Your task to perform on an android device: turn on the 12-hour format for clock Image 0: 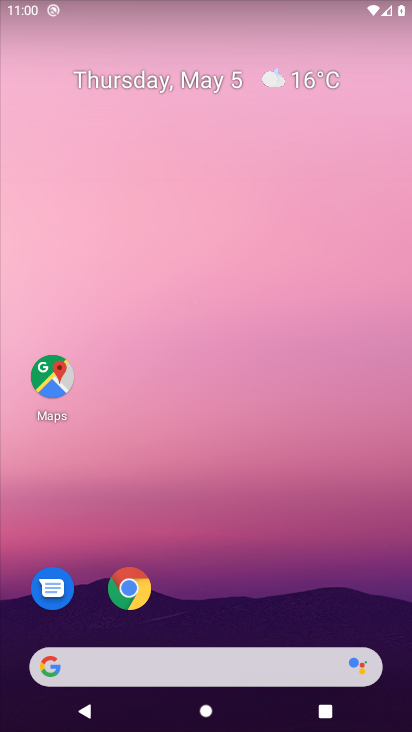
Step 0: drag from (243, 619) to (223, 136)
Your task to perform on an android device: turn on the 12-hour format for clock Image 1: 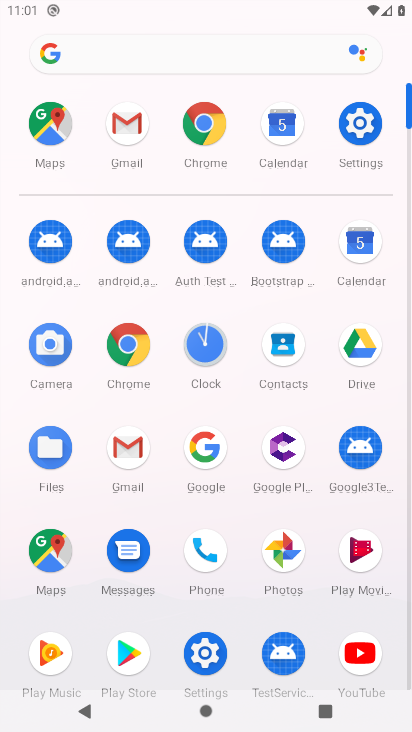
Step 1: click (205, 354)
Your task to perform on an android device: turn on the 12-hour format for clock Image 2: 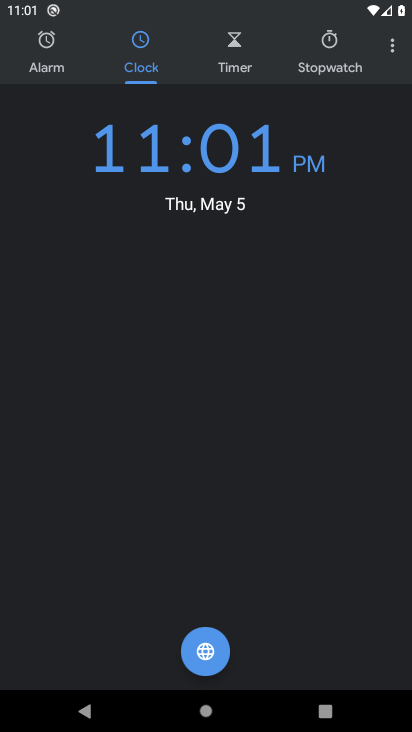
Step 2: click (400, 43)
Your task to perform on an android device: turn on the 12-hour format for clock Image 3: 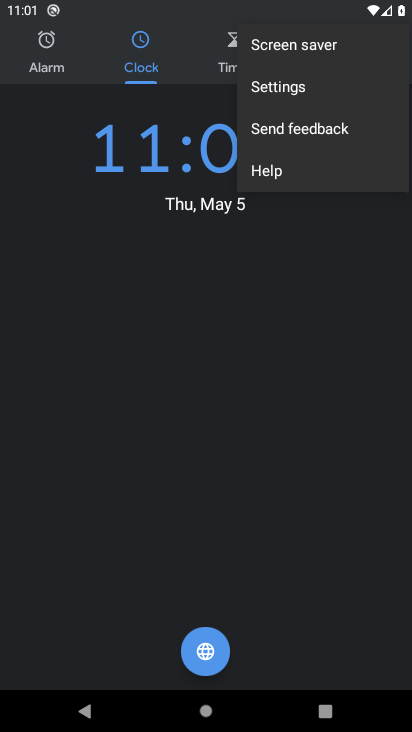
Step 3: click (372, 90)
Your task to perform on an android device: turn on the 12-hour format for clock Image 4: 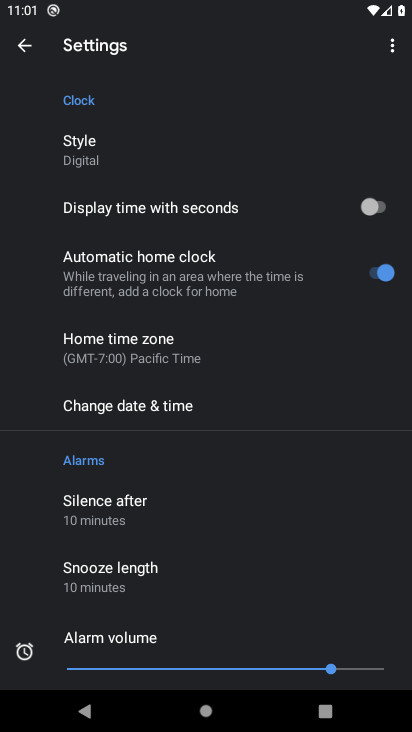
Step 4: click (249, 405)
Your task to perform on an android device: turn on the 12-hour format for clock Image 5: 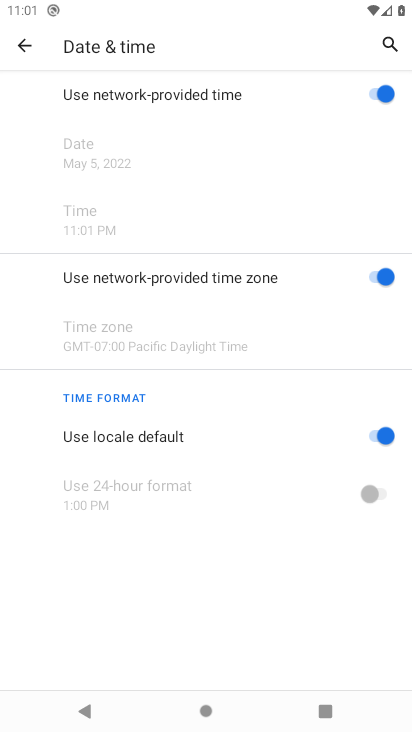
Step 5: task complete